Your task to perform on an android device: Open settings on Google Maps Image 0: 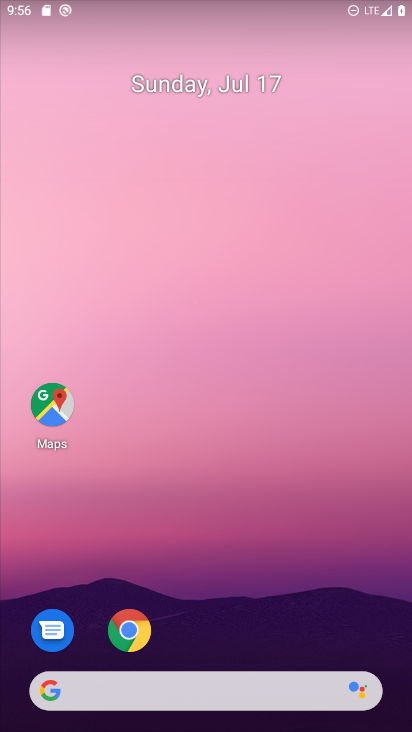
Step 0: drag from (369, 641) to (166, 1)
Your task to perform on an android device: Open settings on Google Maps Image 1: 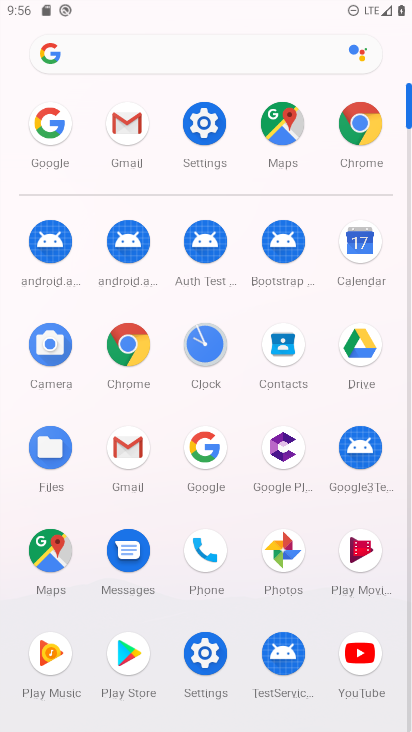
Step 1: click (46, 567)
Your task to perform on an android device: Open settings on Google Maps Image 2: 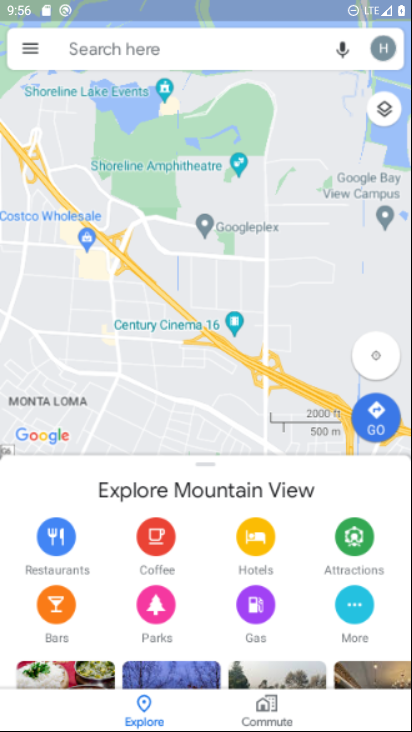
Step 2: click (28, 48)
Your task to perform on an android device: Open settings on Google Maps Image 3: 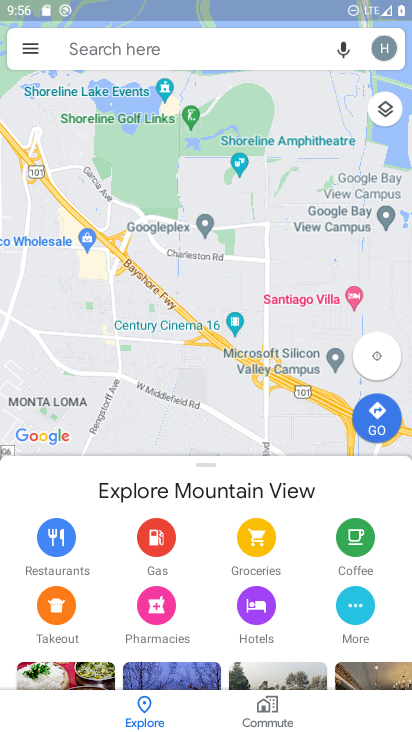
Step 3: click (28, 48)
Your task to perform on an android device: Open settings on Google Maps Image 4: 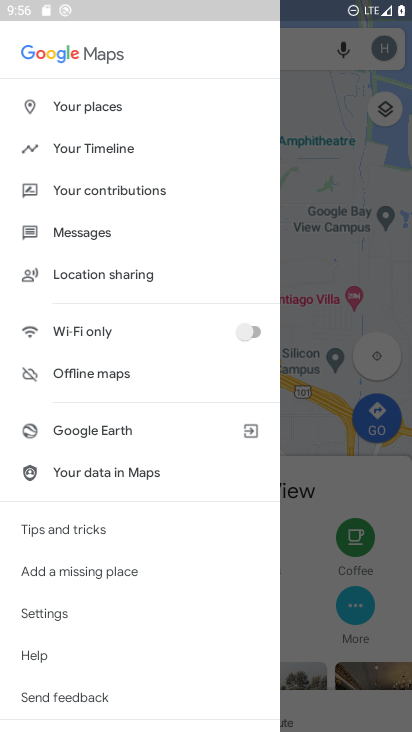
Step 4: click (58, 623)
Your task to perform on an android device: Open settings on Google Maps Image 5: 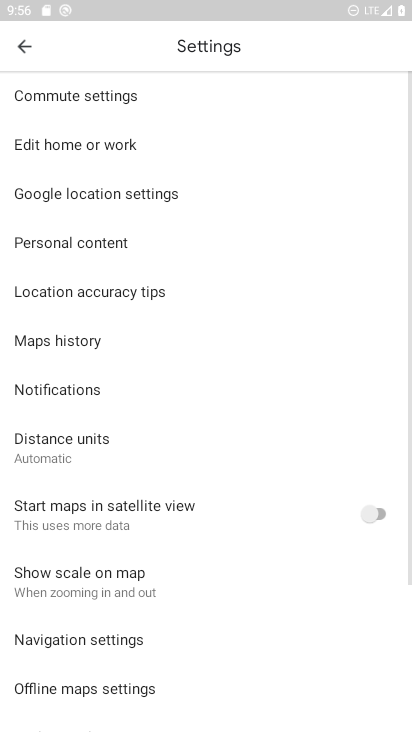
Step 5: task complete